Your task to perform on an android device: Open internet settings Image 0: 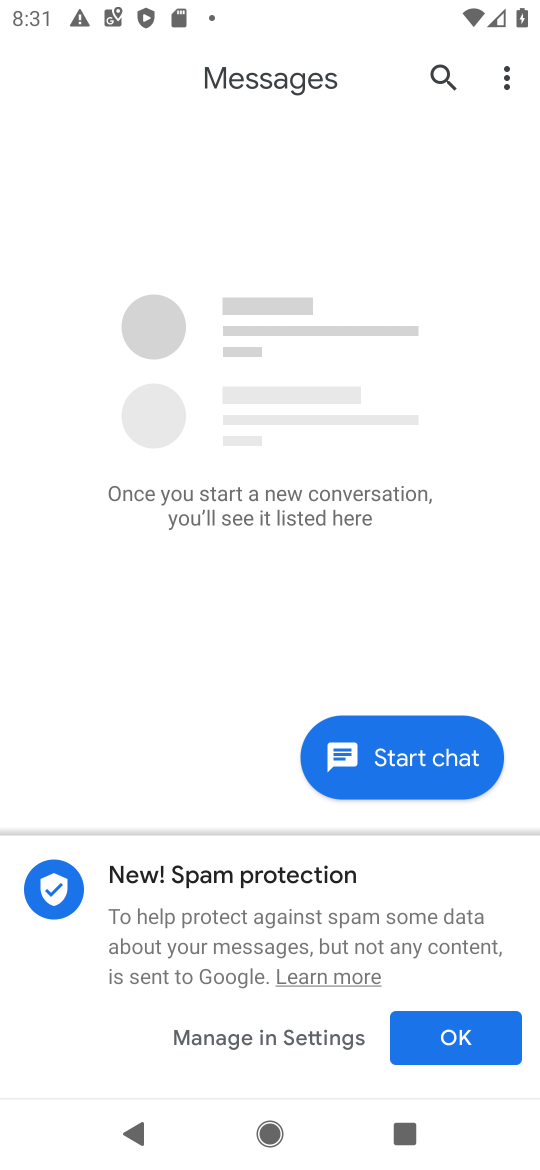
Step 0: press home button
Your task to perform on an android device: Open internet settings Image 1: 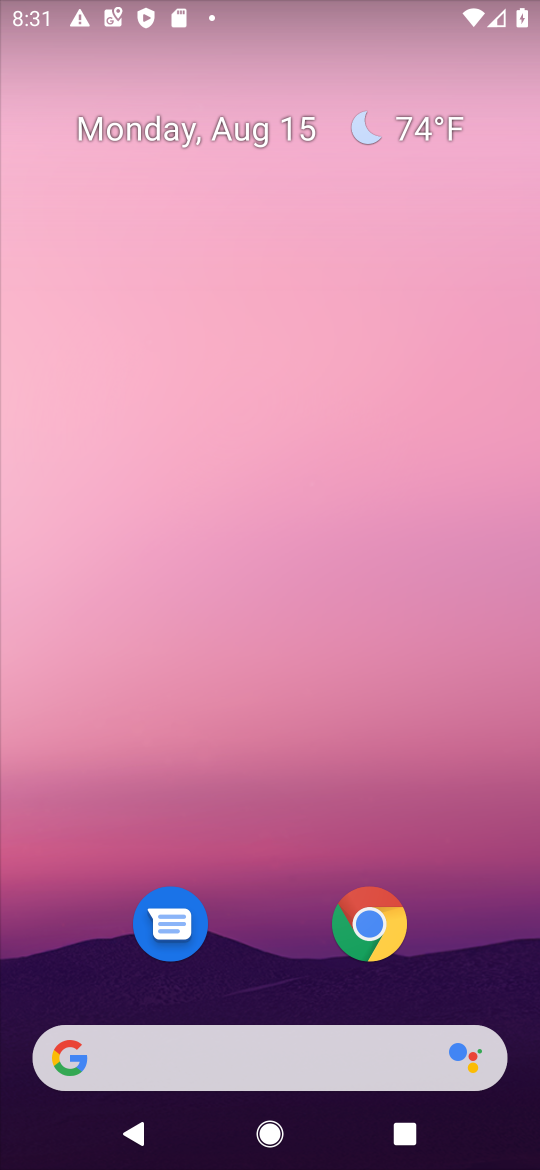
Step 1: drag from (519, 980) to (462, 334)
Your task to perform on an android device: Open internet settings Image 2: 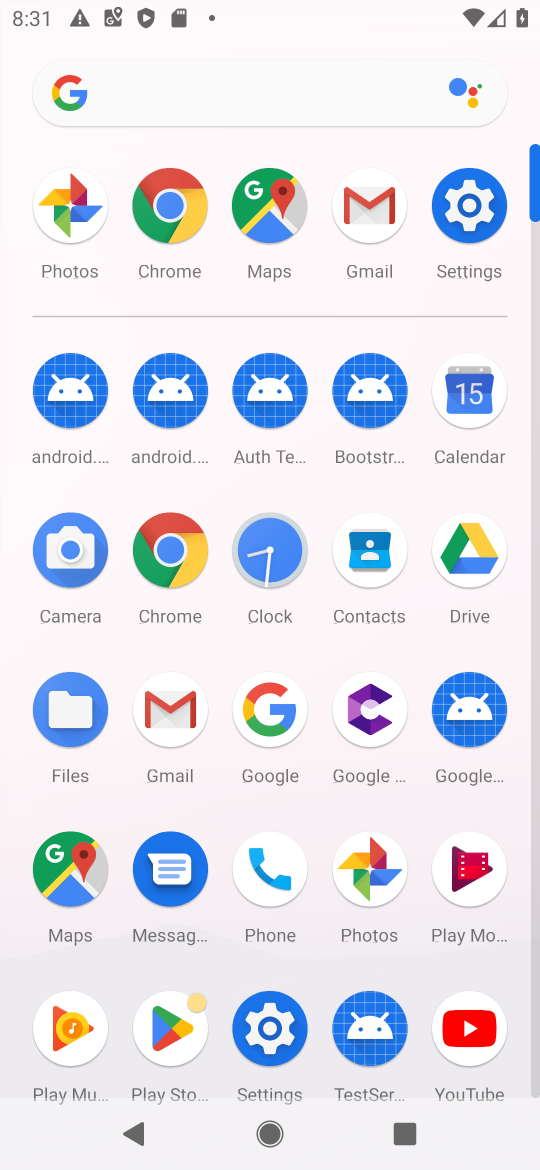
Step 2: click (269, 1031)
Your task to perform on an android device: Open internet settings Image 3: 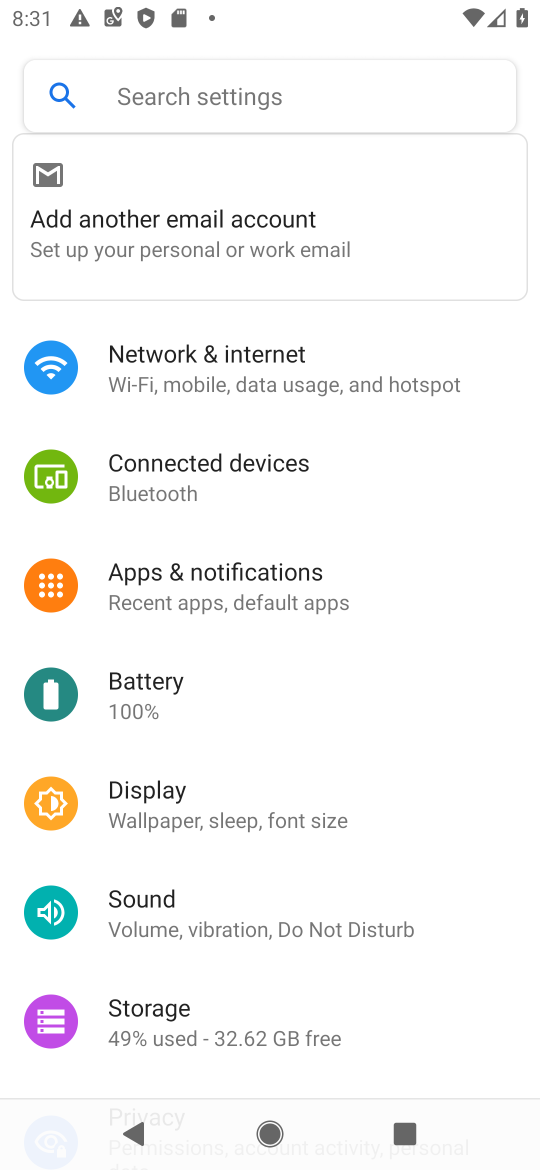
Step 3: click (184, 354)
Your task to perform on an android device: Open internet settings Image 4: 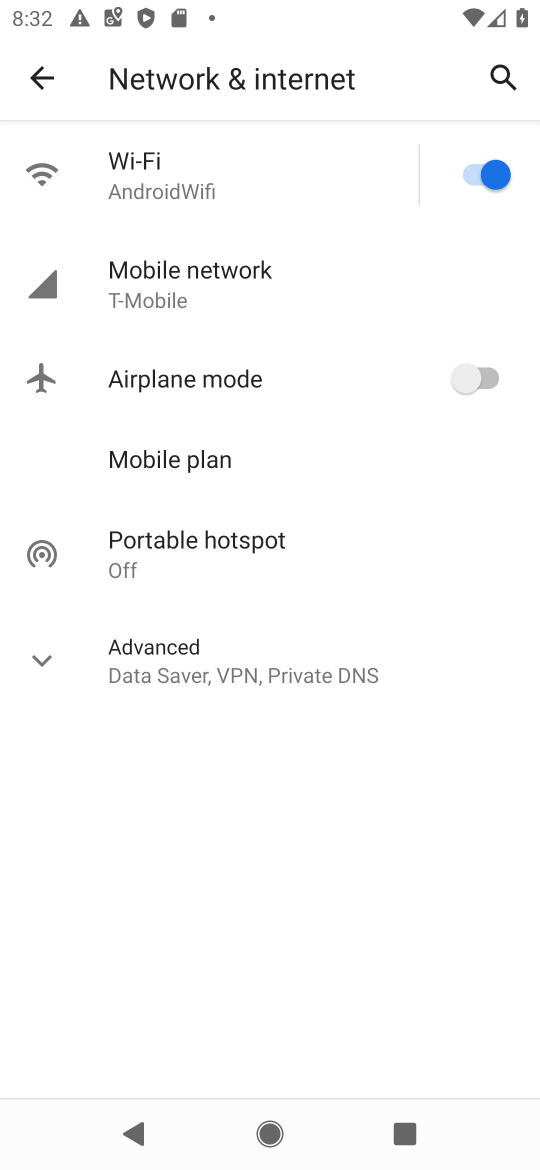
Step 4: click (31, 659)
Your task to perform on an android device: Open internet settings Image 5: 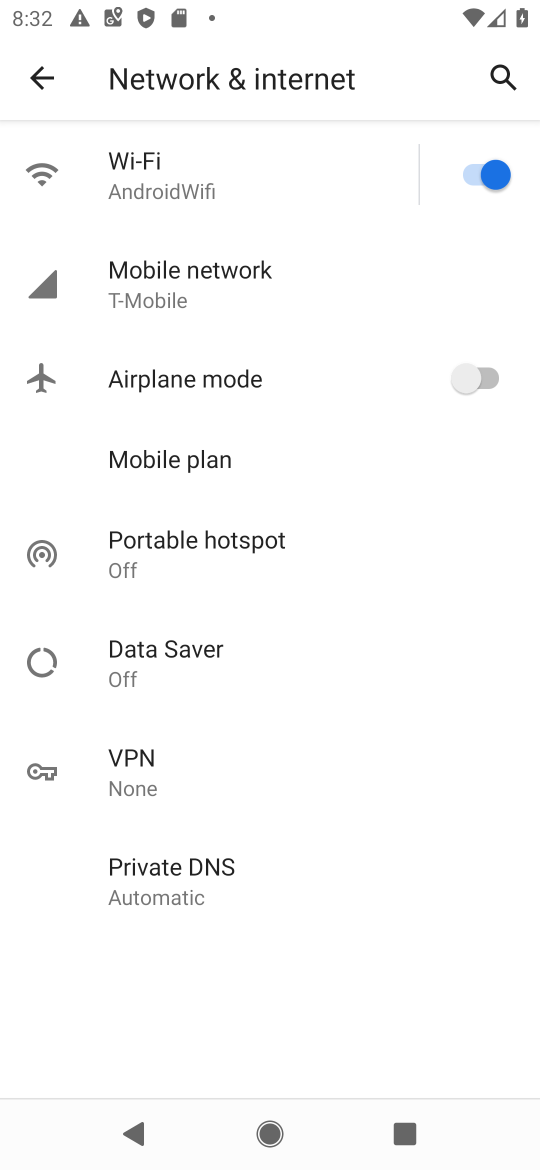
Step 5: click (144, 189)
Your task to perform on an android device: Open internet settings Image 6: 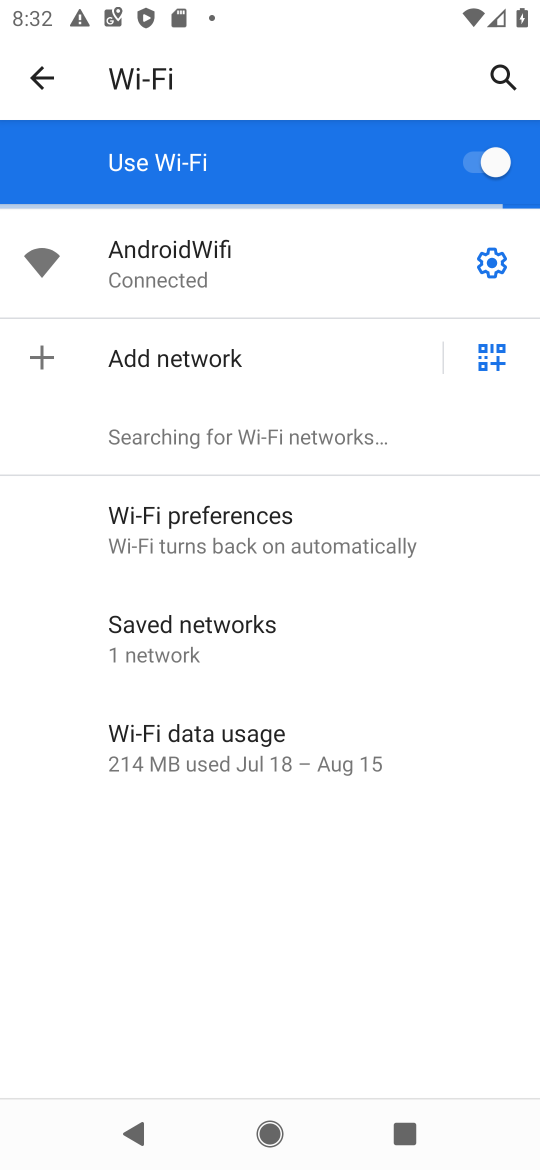
Step 6: task complete